Your task to perform on an android device: Open Youtube and go to "Your channel" Image 0: 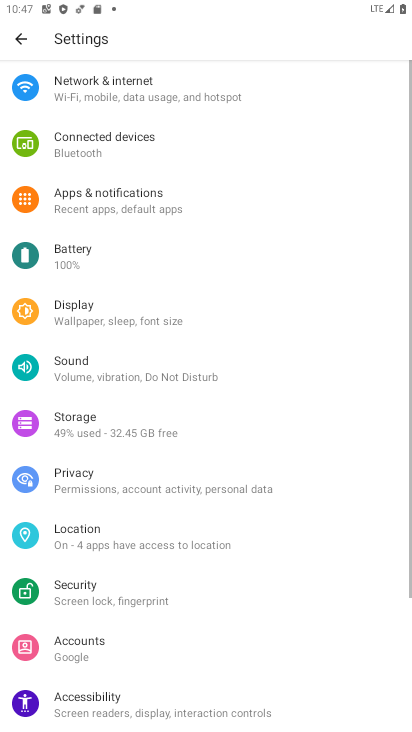
Step 0: press home button
Your task to perform on an android device: Open Youtube and go to "Your channel" Image 1: 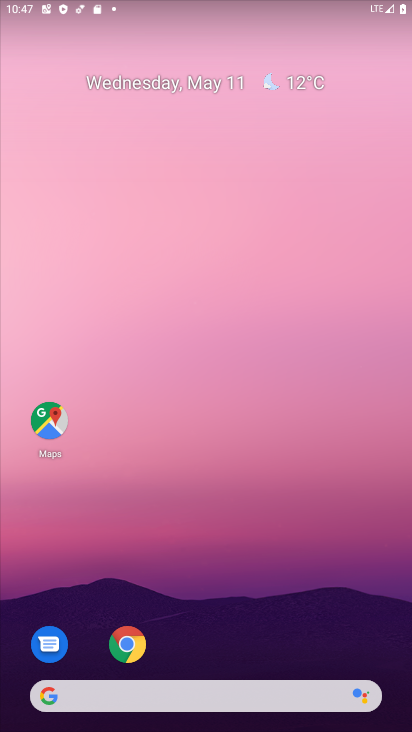
Step 1: drag from (272, 584) to (277, 5)
Your task to perform on an android device: Open Youtube and go to "Your channel" Image 2: 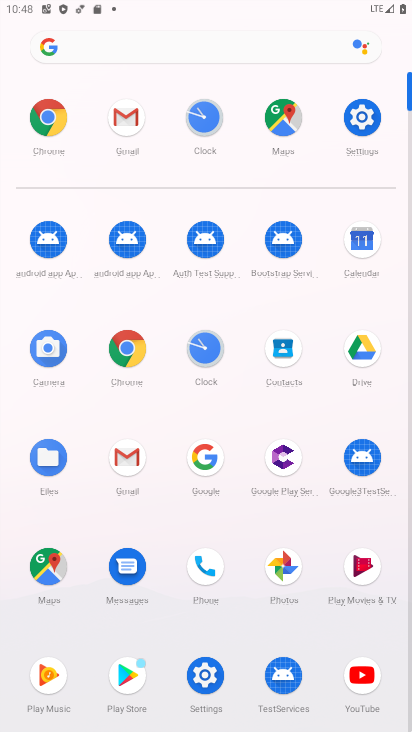
Step 2: click (355, 694)
Your task to perform on an android device: Open Youtube and go to "Your channel" Image 3: 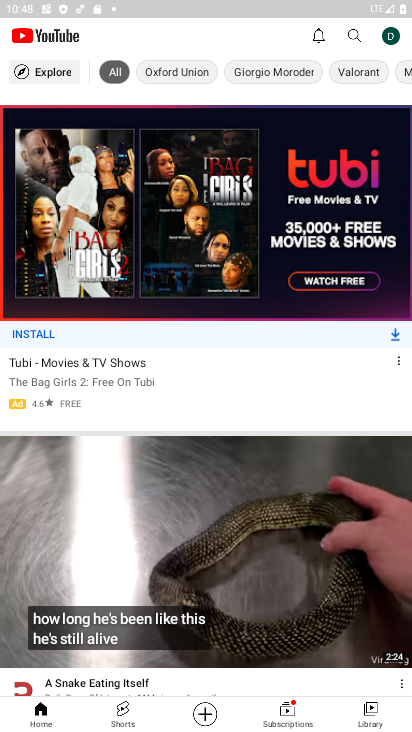
Step 3: click (361, 709)
Your task to perform on an android device: Open Youtube and go to "Your channel" Image 4: 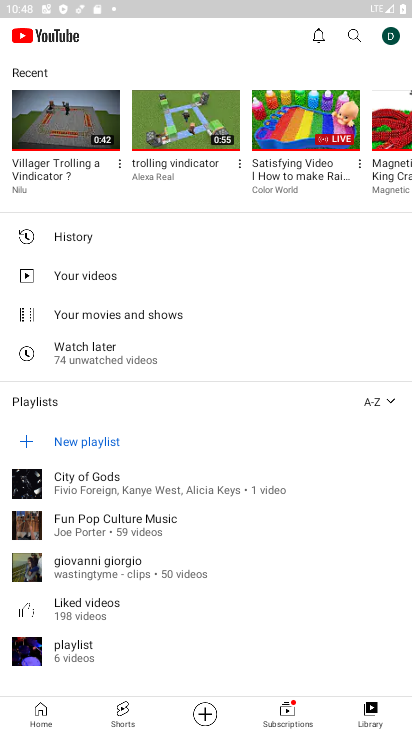
Step 4: click (64, 268)
Your task to perform on an android device: Open Youtube and go to "Your channel" Image 5: 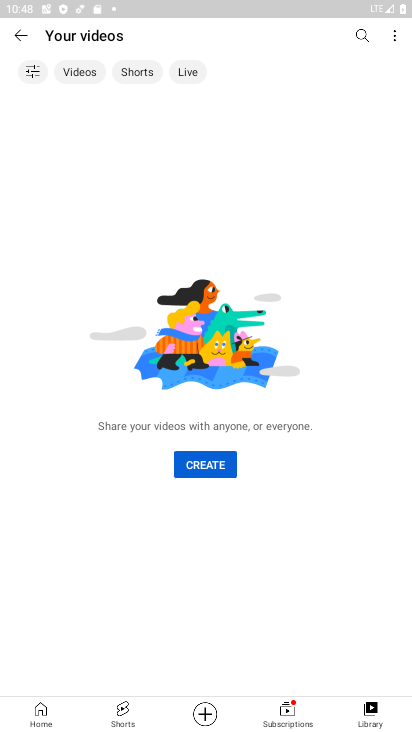
Step 5: task complete